Your task to perform on an android device: Turn on the flashlight Image 0: 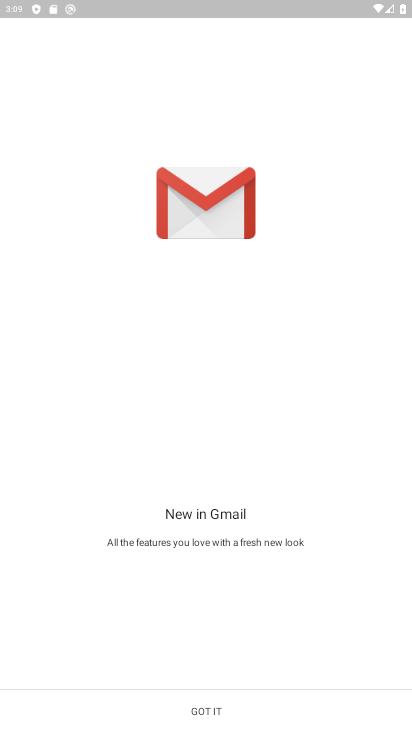
Step 0: press home button
Your task to perform on an android device: Turn on the flashlight Image 1: 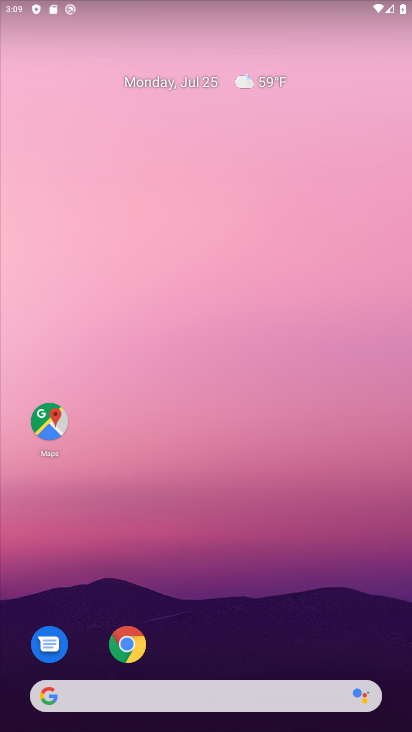
Step 1: drag from (188, 17) to (190, 535)
Your task to perform on an android device: Turn on the flashlight Image 2: 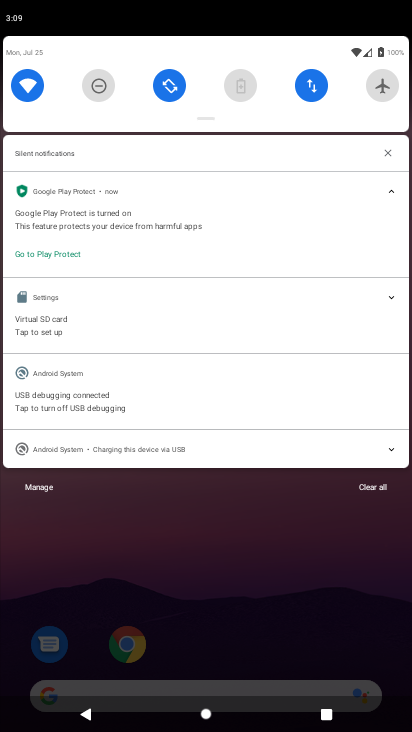
Step 2: drag from (219, 128) to (223, 610)
Your task to perform on an android device: Turn on the flashlight Image 3: 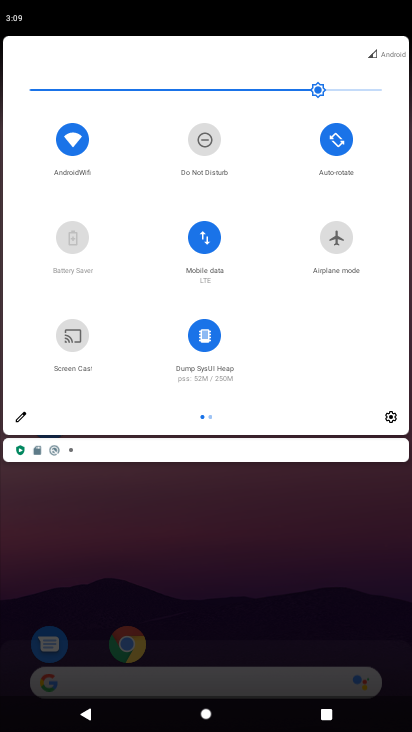
Step 3: drag from (310, 343) to (4, 419)
Your task to perform on an android device: Turn on the flashlight Image 4: 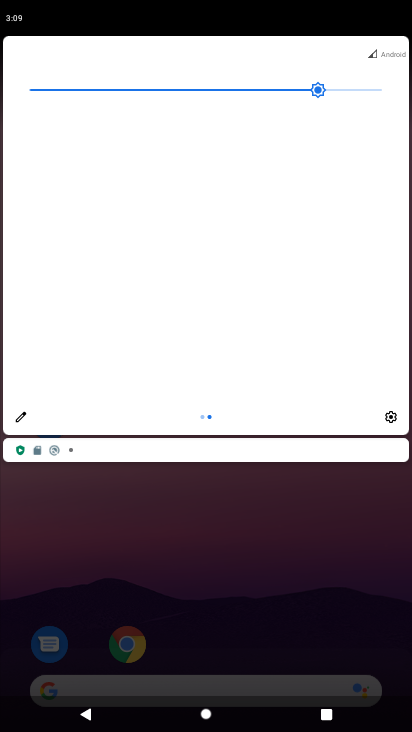
Step 4: click (25, 415)
Your task to perform on an android device: Turn on the flashlight Image 5: 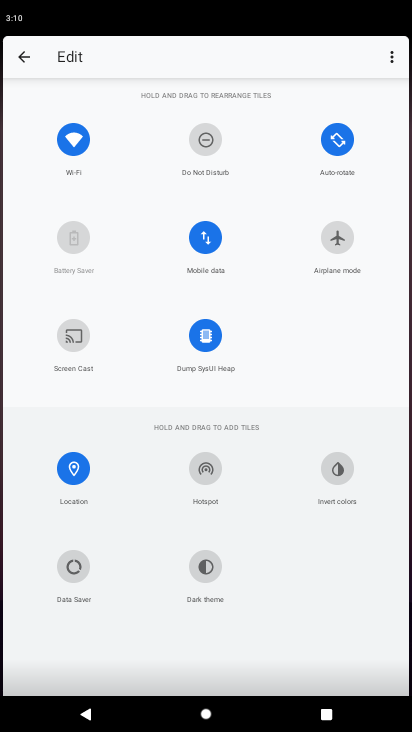
Step 5: task complete